Your task to perform on an android device: What's the weather going to be this weekend? Image 0: 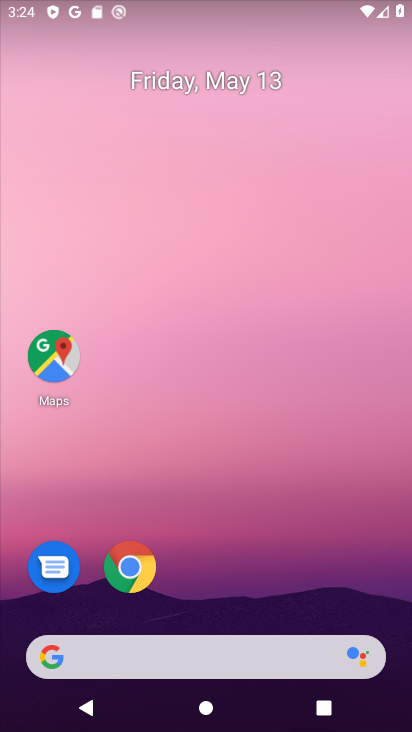
Step 0: drag from (332, 621) to (262, 305)
Your task to perform on an android device: What's the weather going to be this weekend? Image 1: 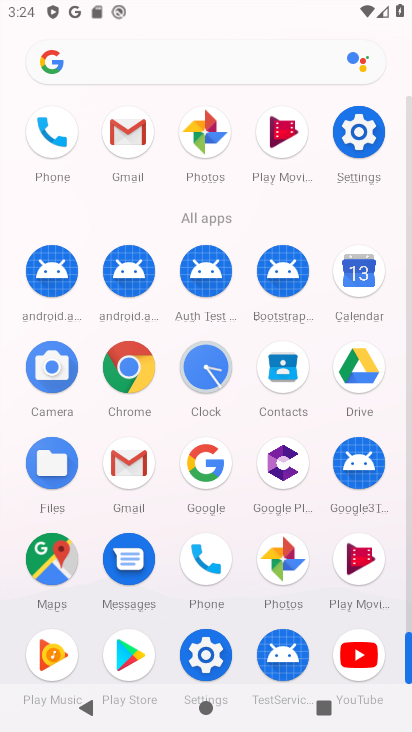
Step 1: press back button
Your task to perform on an android device: What's the weather going to be this weekend? Image 2: 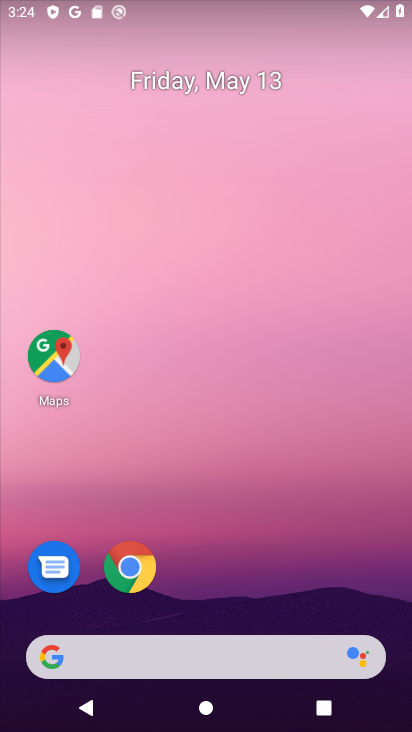
Step 2: drag from (1, 265) to (394, 272)
Your task to perform on an android device: What's the weather going to be this weekend? Image 3: 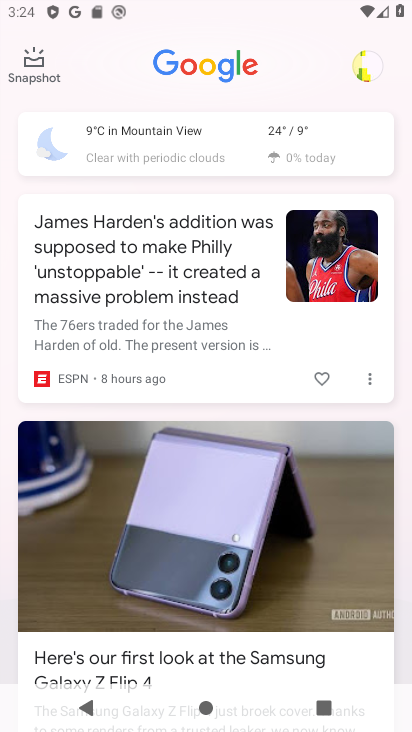
Step 3: click (153, 135)
Your task to perform on an android device: What's the weather going to be this weekend? Image 4: 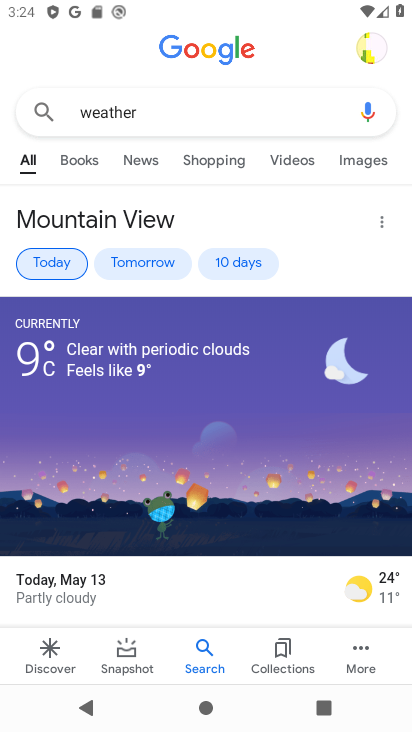
Step 4: click (150, 272)
Your task to perform on an android device: What's the weather going to be this weekend? Image 5: 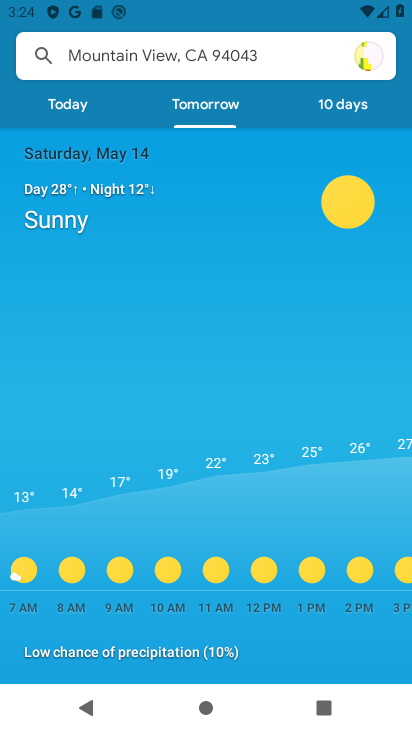
Step 5: click (345, 120)
Your task to perform on an android device: What's the weather going to be this weekend? Image 6: 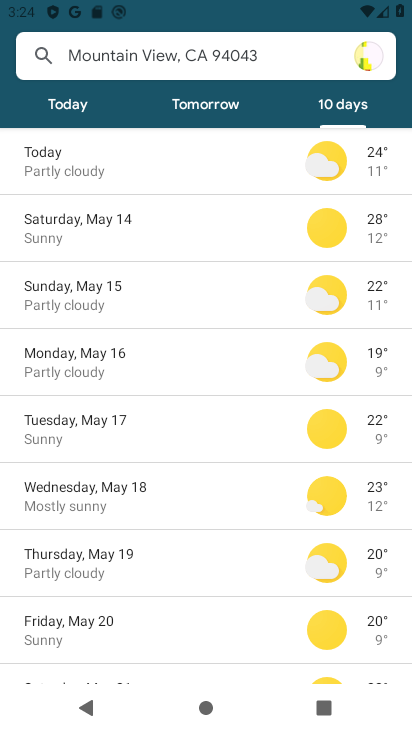
Step 6: click (136, 228)
Your task to perform on an android device: What's the weather going to be this weekend? Image 7: 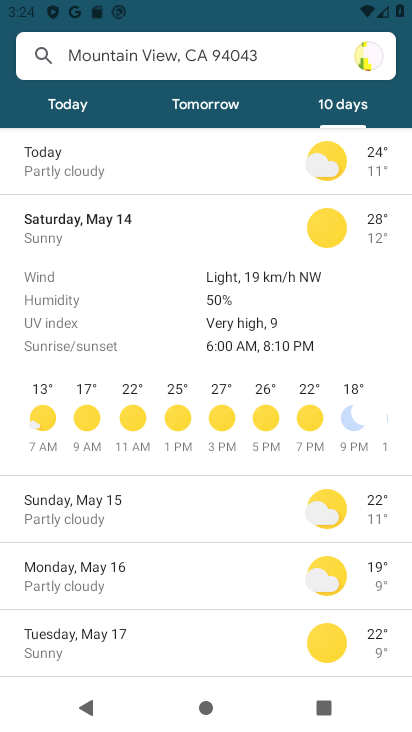
Step 7: task complete